Your task to perform on an android device: Show me popular videos on Youtube Image 0: 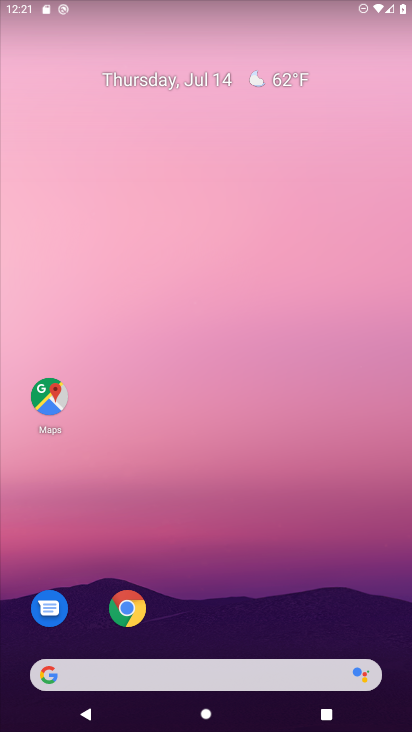
Step 0: drag from (229, 721) to (229, 497)
Your task to perform on an android device: Show me popular videos on Youtube Image 1: 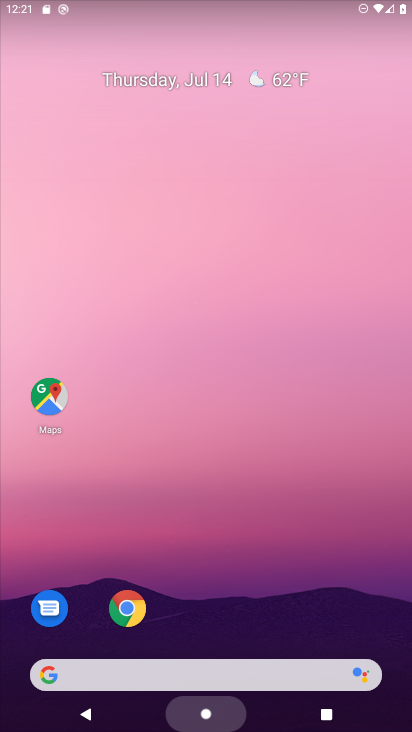
Step 1: drag from (232, 244) to (233, 113)
Your task to perform on an android device: Show me popular videos on Youtube Image 2: 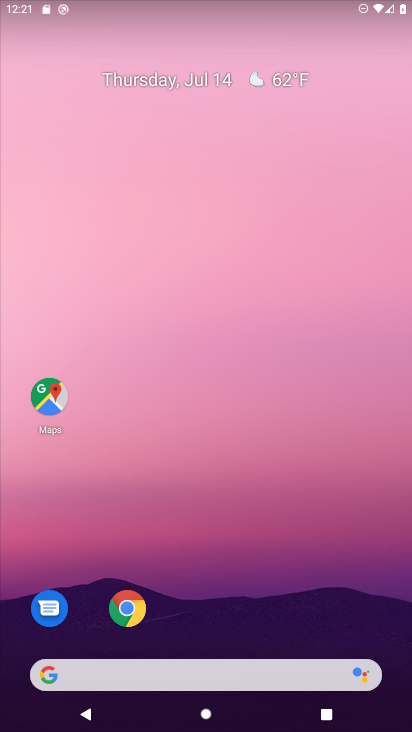
Step 2: drag from (236, 717) to (236, 675)
Your task to perform on an android device: Show me popular videos on Youtube Image 3: 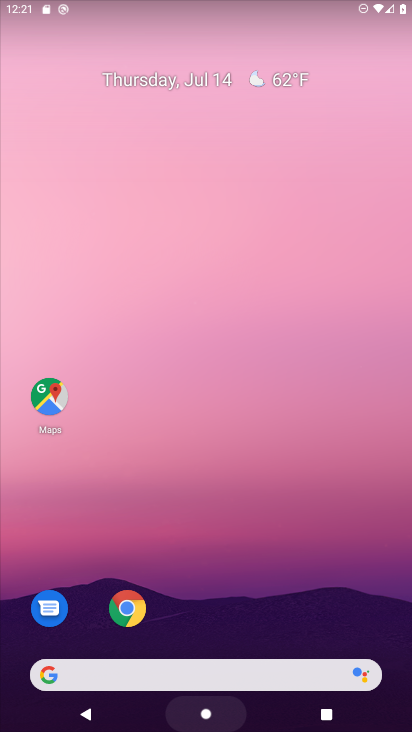
Step 3: click (239, 95)
Your task to perform on an android device: Show me popular videos on Youtube Image 4: 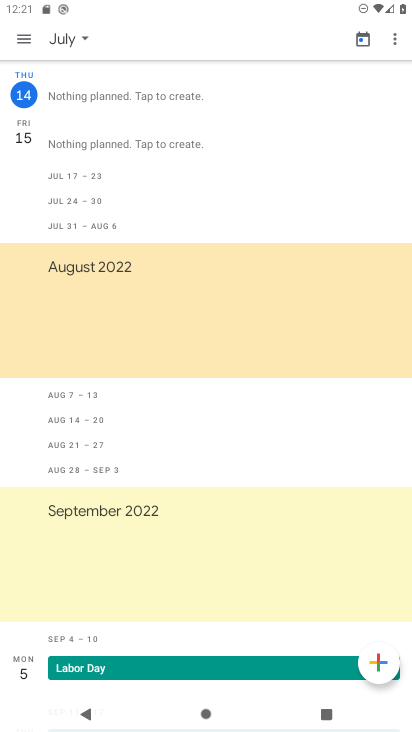
Step 4: press home button
Your task to perform on an android device: Show me popular videos on Youtube Image 5: 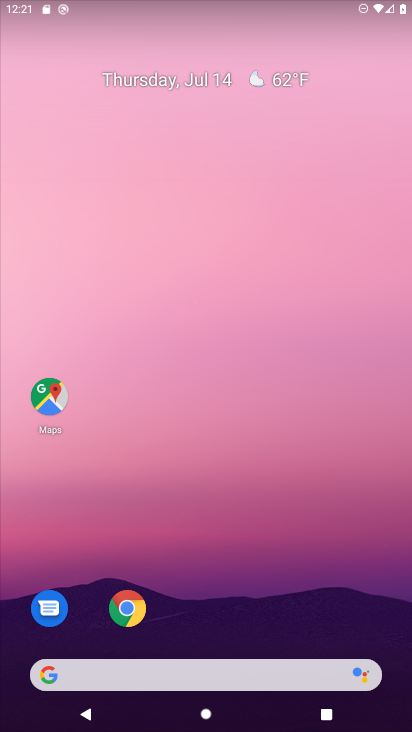
Step 5: drag from (232, 728) to (178, 124)
Your task to perform on an android device: Show me popular videos on Youtube Image 6: 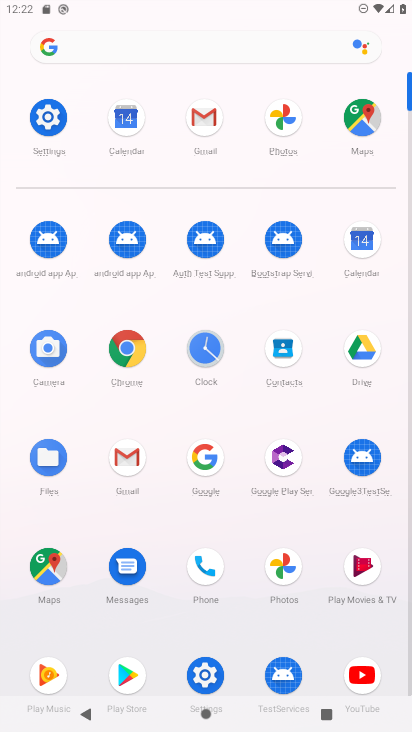
Step 6: click (364, 678)
Your task to perform on an android device: Show me popular videos on Youtube Image 7: 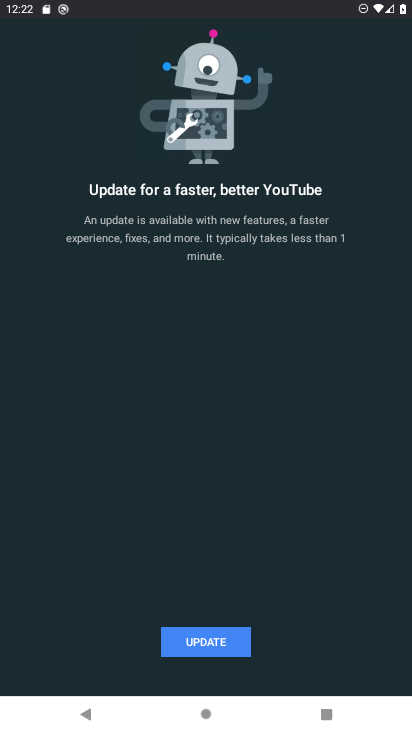
Step 7: task complete